Your task to perform on an android device: Do I have any events tomorrow? Image 0: 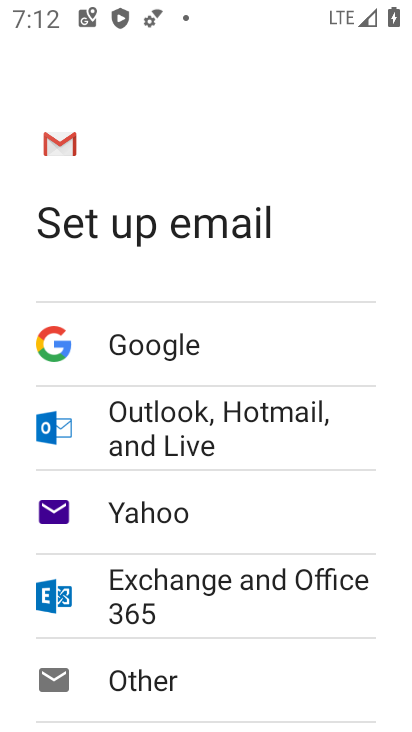
Step 0: press back button
Your task to perform on an android device: Do I have any events tomorrow? Image 1: 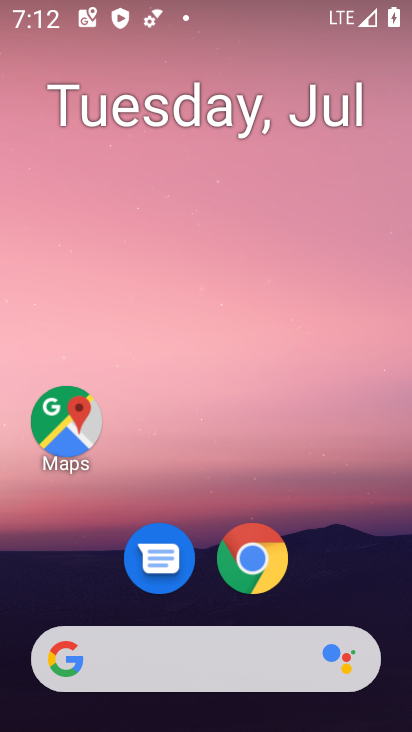
Step 1: drag from (200, 600) to (186, 0)
Your task to perform on an android device: Do I have any events tomorrow? Image 2: 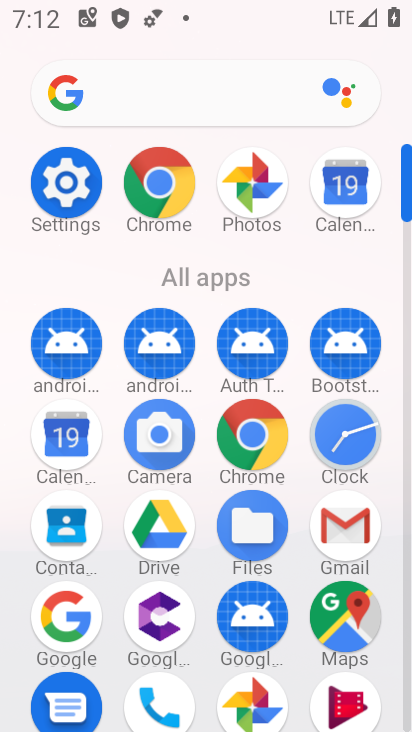
Step 2: click (73, 431)
Your task to perform on an android device: Do I have any events tomorrow? Image 3: 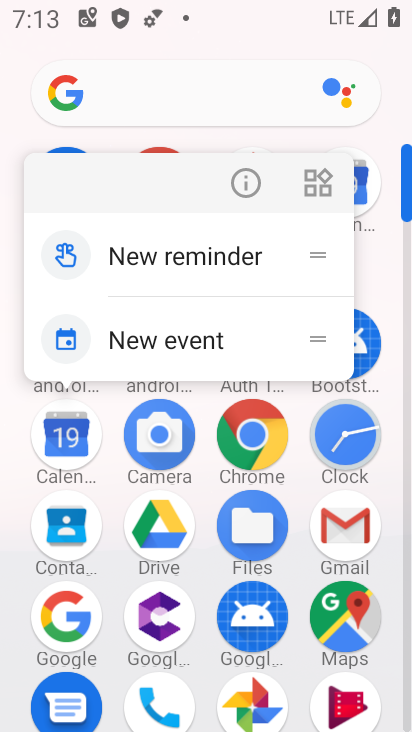
Step 3: click (54, 435)
Your task to perform on an android device: Do I have any events tomorrow? Image 4: 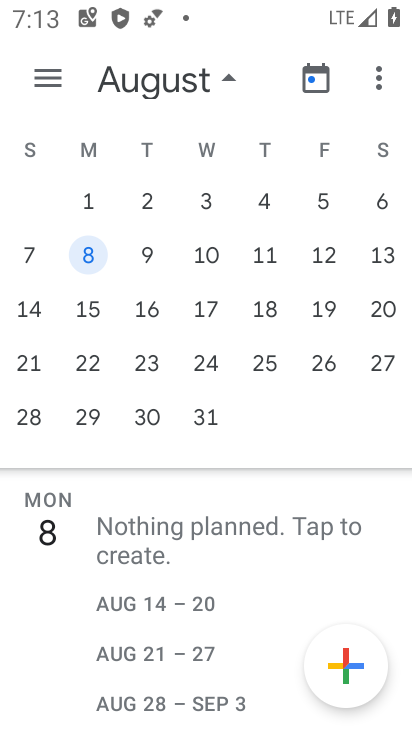
Step 4: drag from (19, 294) to (378, 299)
Your task to perform on an android device: Do I have any events tomorrow? Image 5: 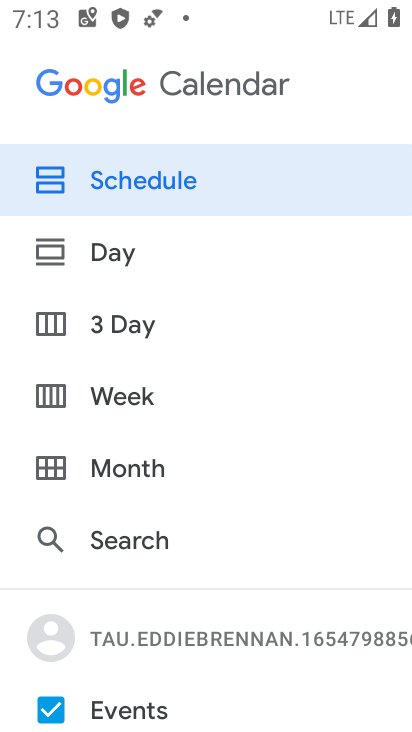
Step 5: drag from (372, 299) to (67, 311)
Your task to perform on an android device: Do I have any events tomorrow? Image 6: 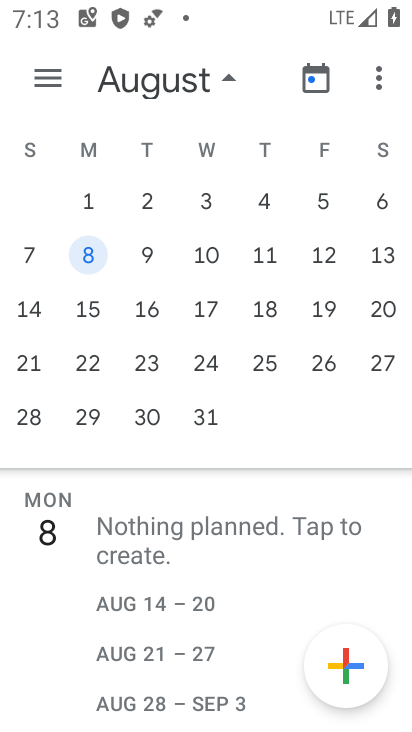
Step 6: drag from (155, 308) to (410, 315)
Your task to perform on an android device: Do I have any events tomorrow? Image 7: 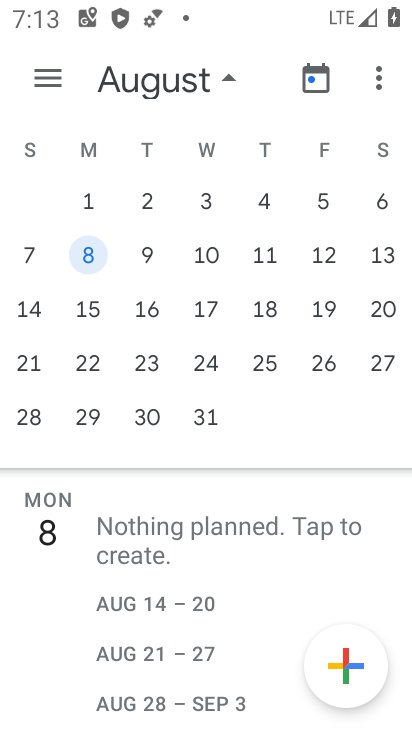
Step 7: drag from (117, 324) to (411, 347)
Your task to perform on an android device: Do I have any events tomorrow? Image 8: 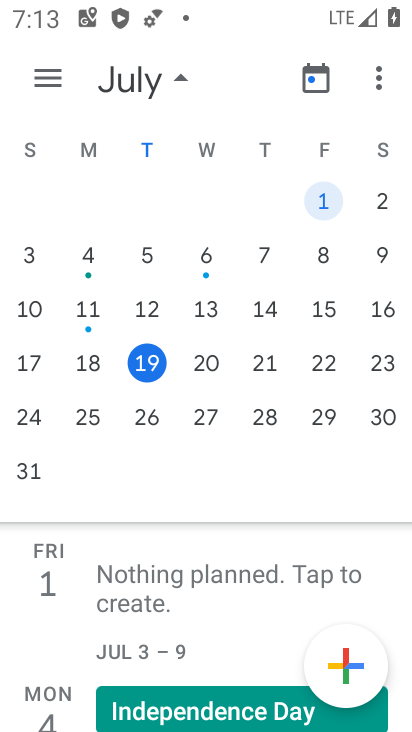
Step 8: click (204, 365)
Your task to perform on an android device: Do I have any events tomorrow? Image 9: 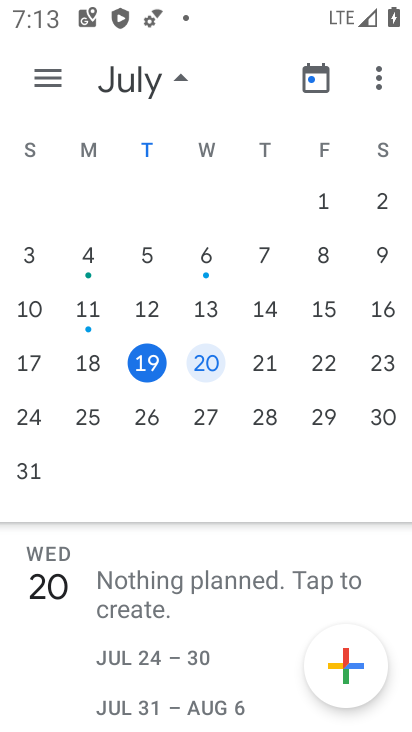
Step 9: task complete